Your task to perform on an android device: Go to Google maps Image 0: 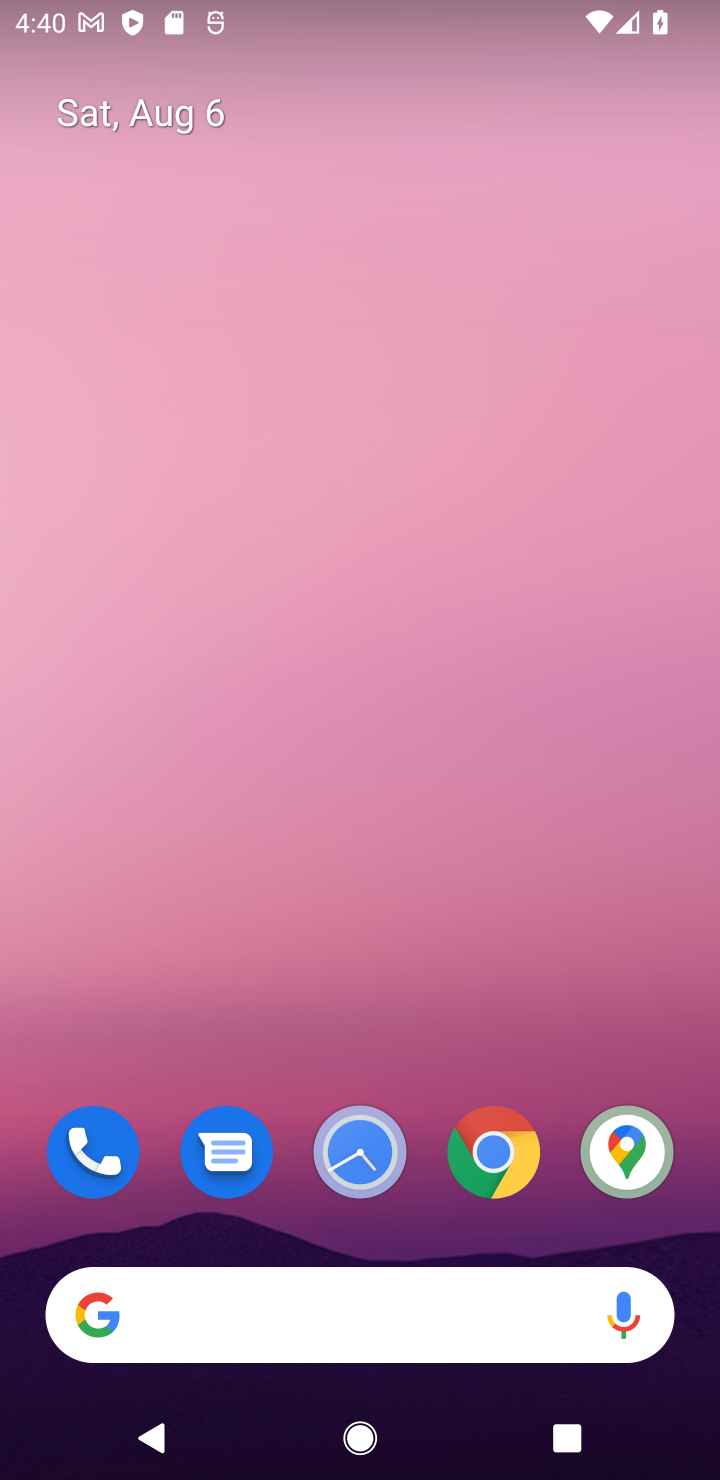
Step 0: drag from (472, 1028) to (389, 156)
Your task to perform on an android device: Go to Google maps Image 1: 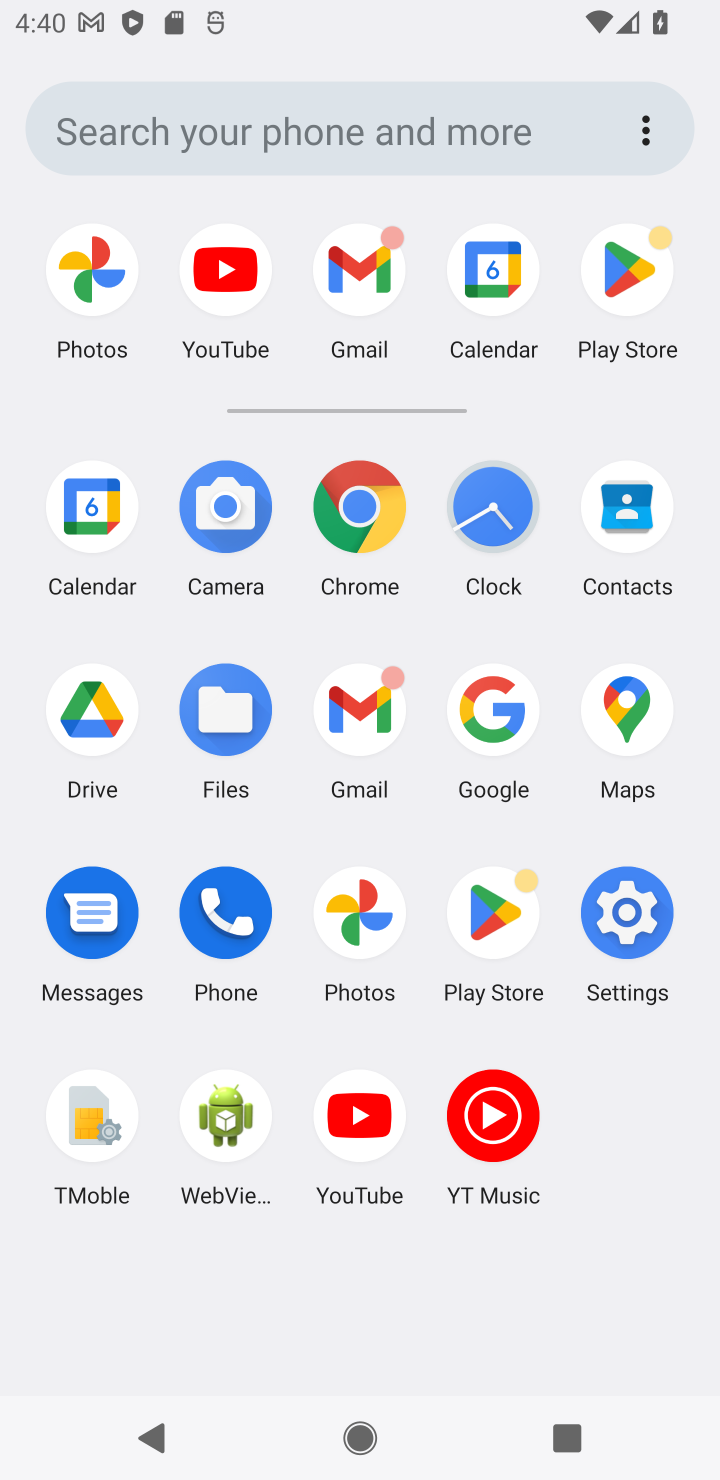
Step 1: click (658, 708)
Your task to perform on an android device: Go to Google maps Image 2: 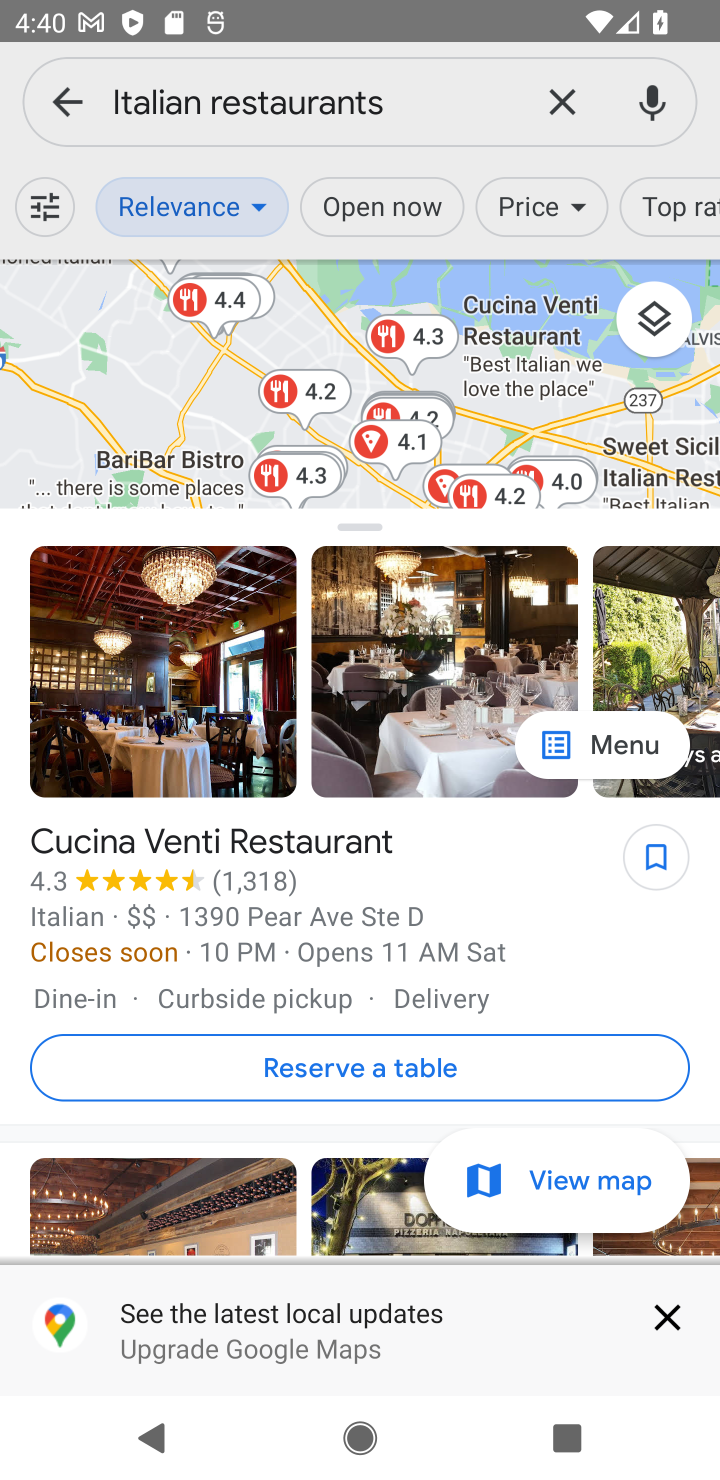
Step 2: task complete